Your task to perform on an android device: View the shopping cart on bestbuy.com. Search for "logitech g903" on bestbuy.com, select the first entry, and add it to the cart. Image 0: 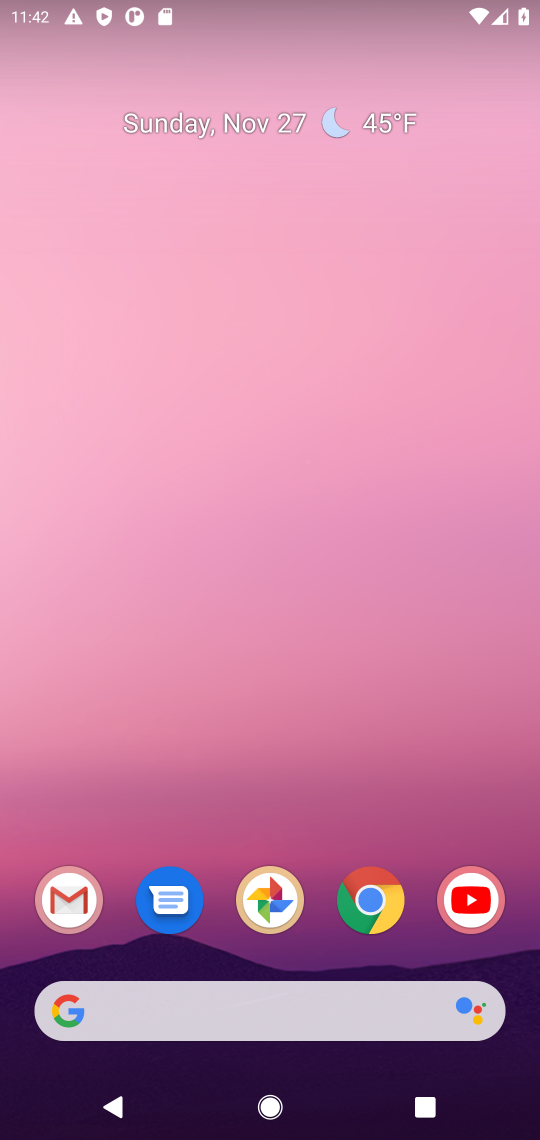
Step 0: click (375, 910)
Your task to perform on an android device: View the shopping cart on bestbuy.com. Search for "logitech g903" on bestbuy.com, select the first entry, and add it to the cart. Image 1: 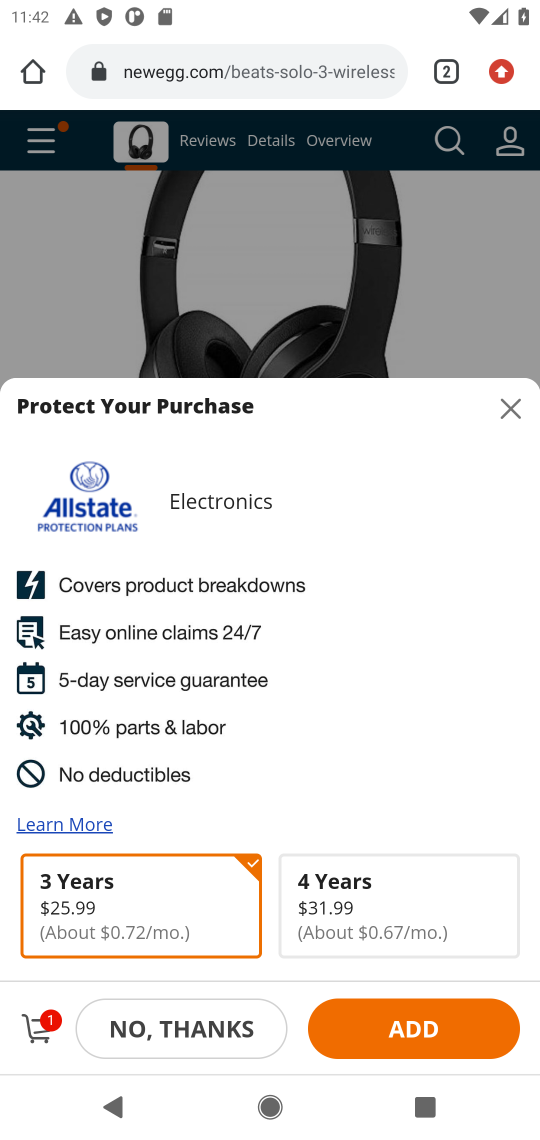
Step 1: click (247, 72)
Your task to perform on an android device: View the shopping cart on bestbuy.com. Search for "logitech g903" on bestbuy.com, select the first entry, and add it to the cart. Image 2: 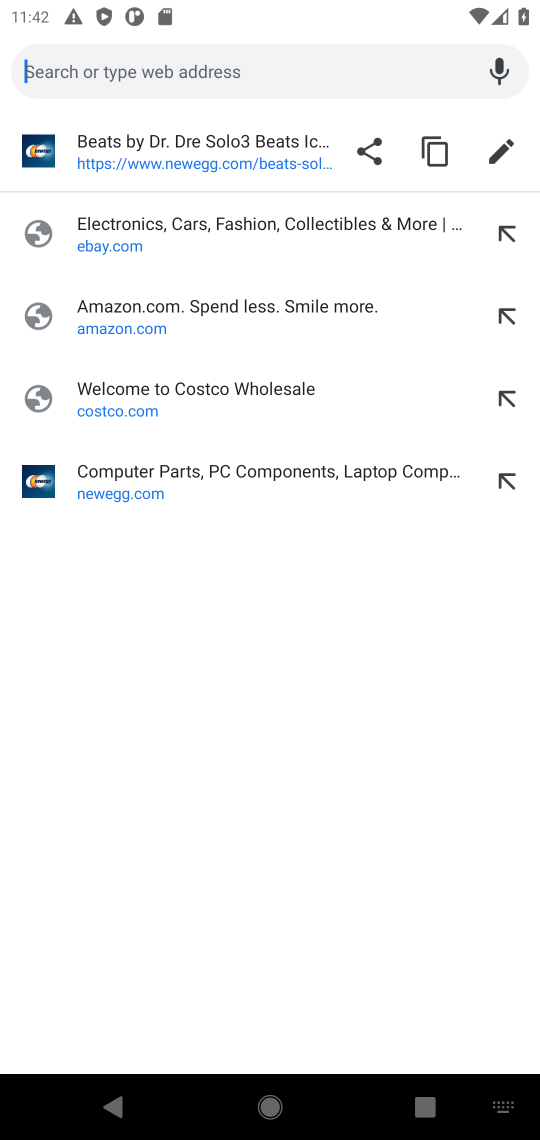
Step 2: type "bestbuy.com"
Your task to perform on an android device: View the shopping cart on bestbuy.com. Search for "logitech g903" on bestbuy.com, select the first entry, and add it to the cart. Image 3: 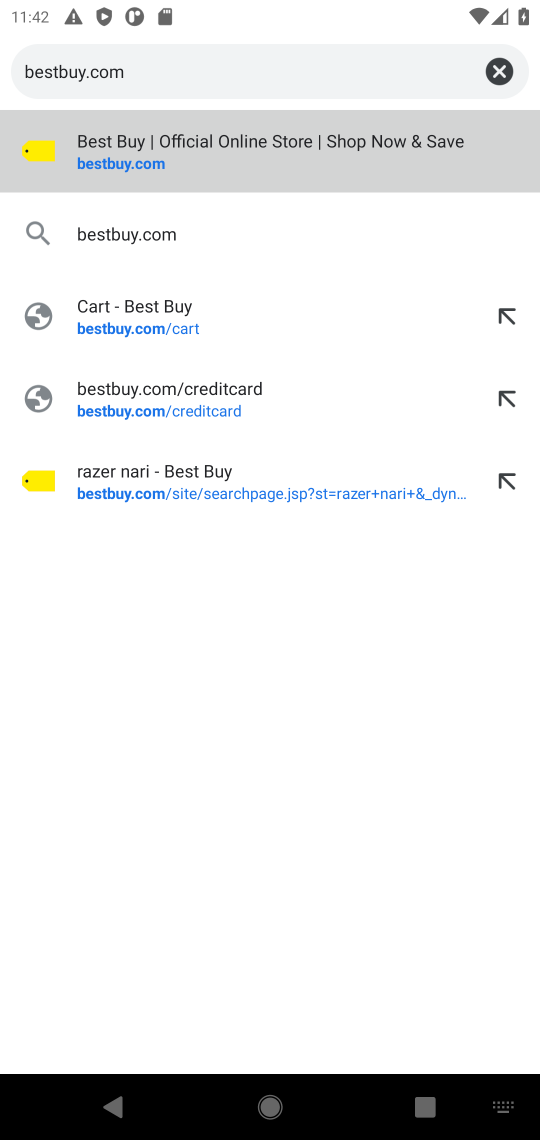
Step 3: click (141, 164)
Your task to perform on an android device: View the shopping cart on bestbuy.com. Search for "logitech g903" on bestbuy.com, select the first entry, and add it to the cart. Image 4: 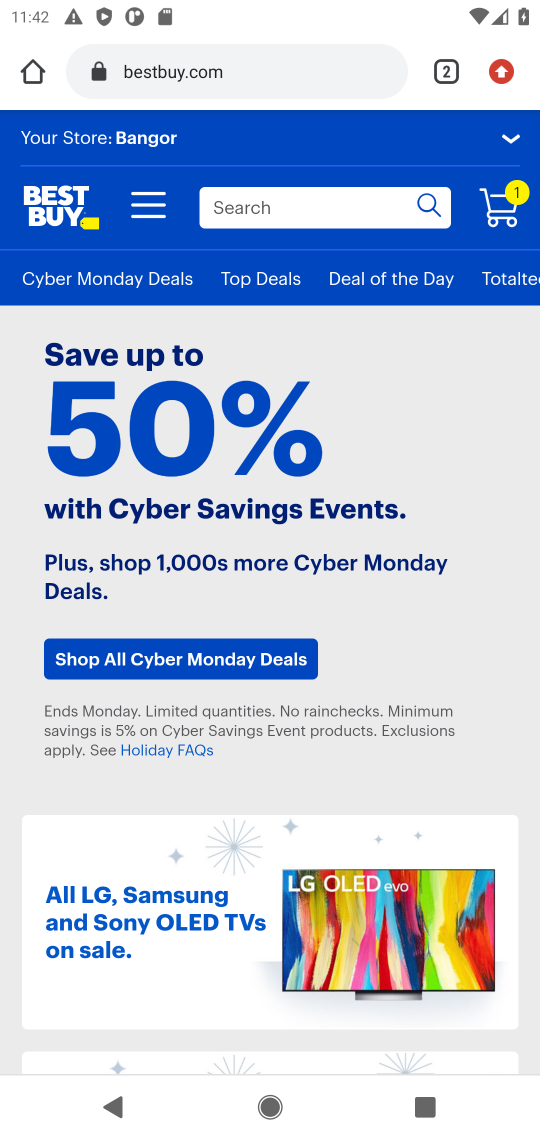
Step 4: click (506, 212)
Your task to perform on an android device: View the shopping cart on bestbuy.com. Search for "logitech g903" on bestbuy.com, select the first entry, and add it to the cart. Image 5: 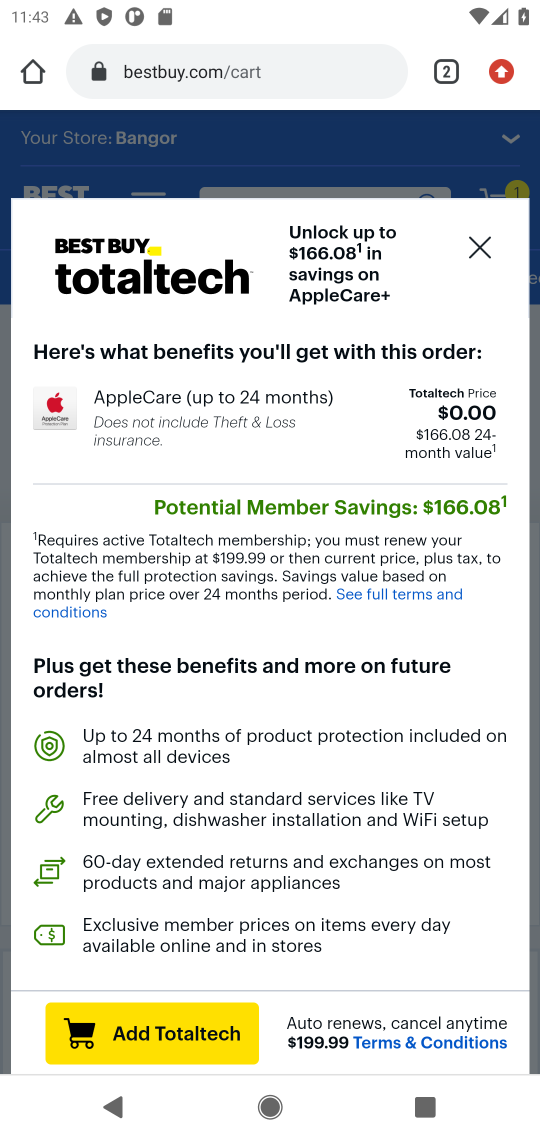
Step 5: click (486, 248)
Your task to perform on an android device: View the shopping cart on bestbuy.com. Search for "logitech g903" on bestbuy.com, select the first entry, and add it to the cart. Image 6: 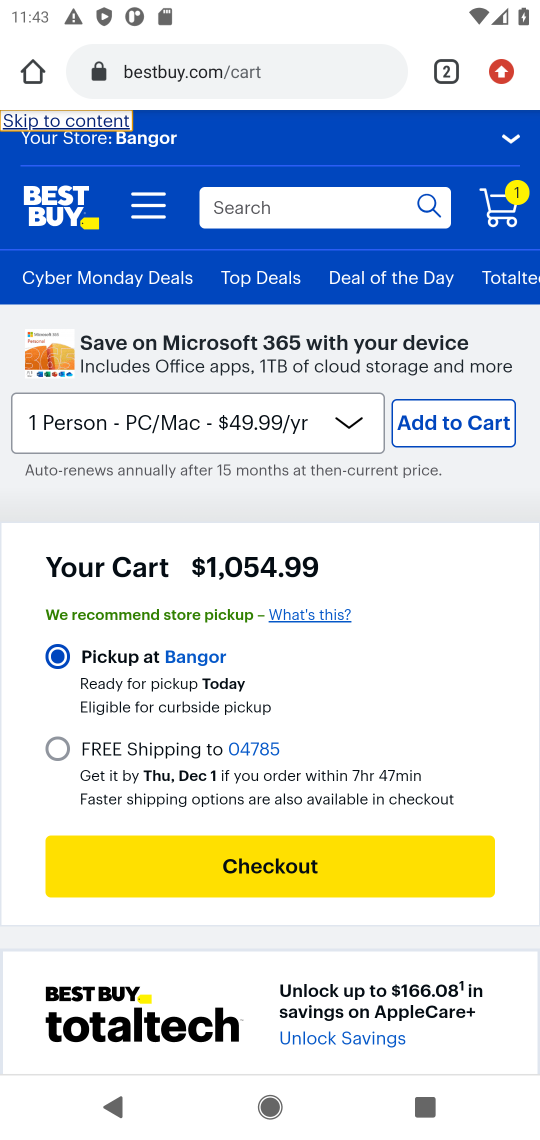
Step 6: click (243, 216)
Your task to perform on an android device: View the shopping cart on bestbuy.com. Search for "logitech g903" on bestbuy.com, select the first entry, and add it to the cart. Image 7: 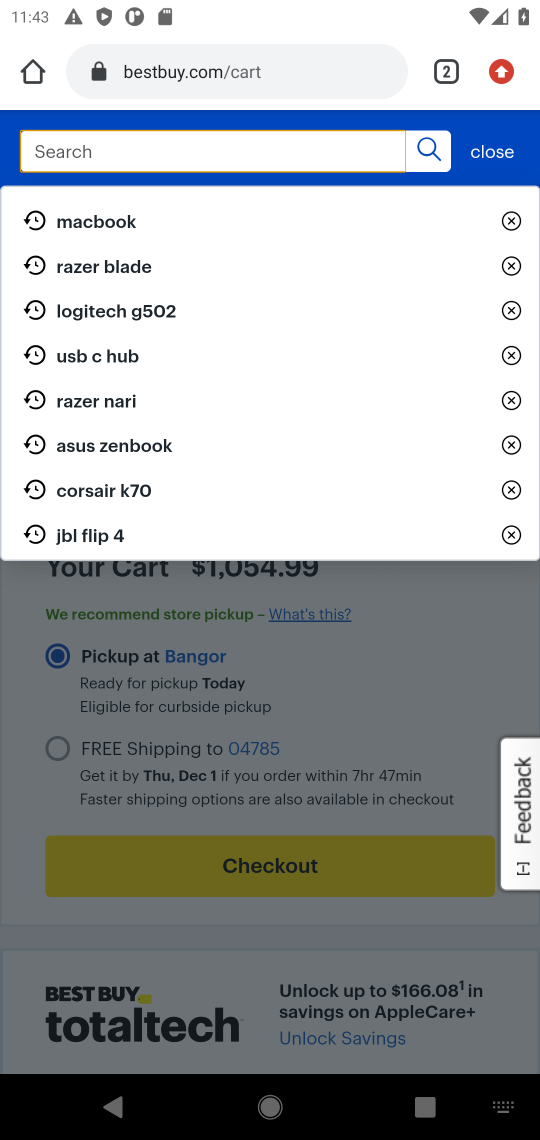
Step 7: type "logitech g903"
Your task to perform on an android device: View the shopping cart on bestbuy.com. Search for "logitech g903" on bestbuy.com, select the first entry, and add it to the cart. Image 8: 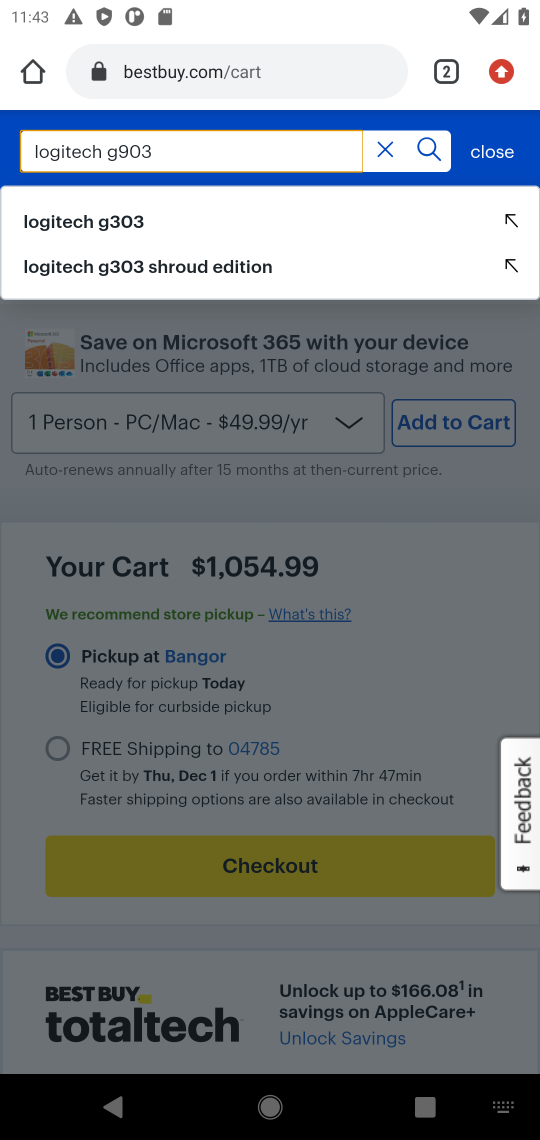
Step 8: click (430, 150)
Your task to perform on an android device: View the shopping cart on bestbuy.com. Search for "logitech g903" on bestbuy.com, select the first entry, and add it to the cart. Image 9: 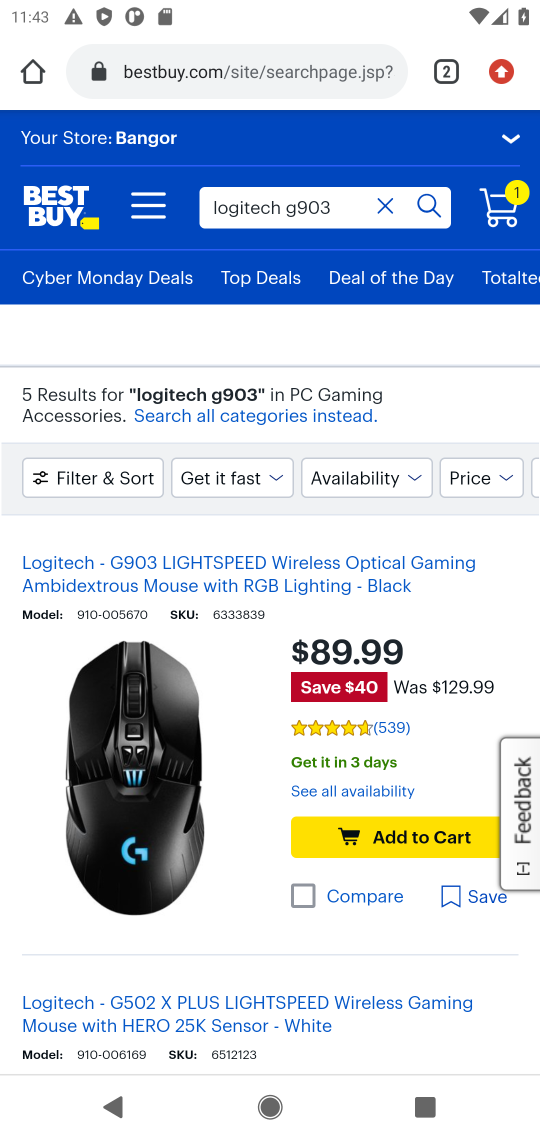
Step 9: click (400, 837)
Your task to perform on an android device: View the shopping cart on bestbuy.com. Search for "logitech g903" on bestbuy.com, select the first entry, and add it to the cart. Image 10: 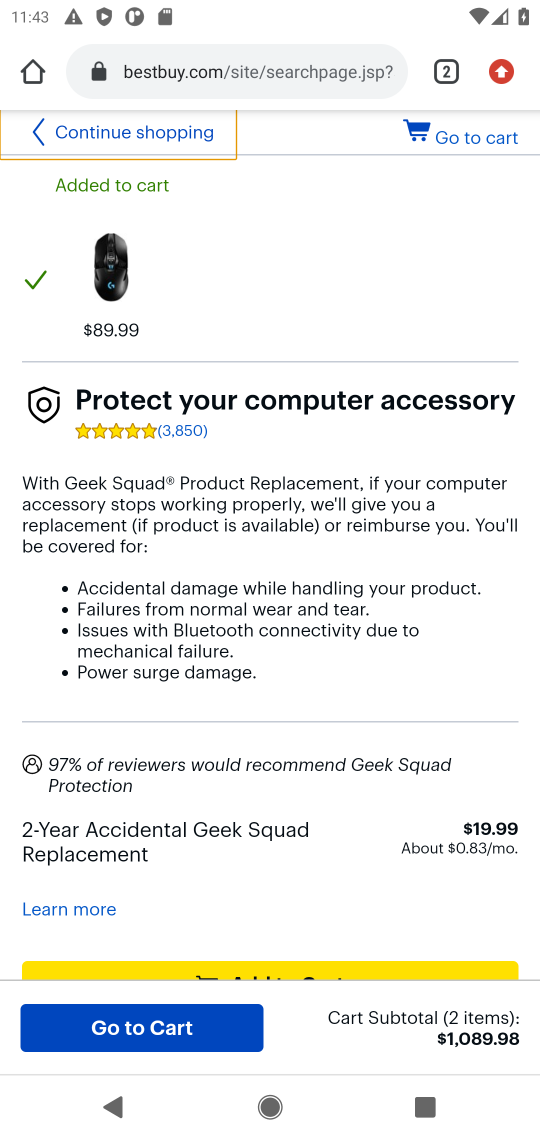
Step 10: task complete